Your task to perform on an android device: turn on the 24-hour format for clock Image 0: 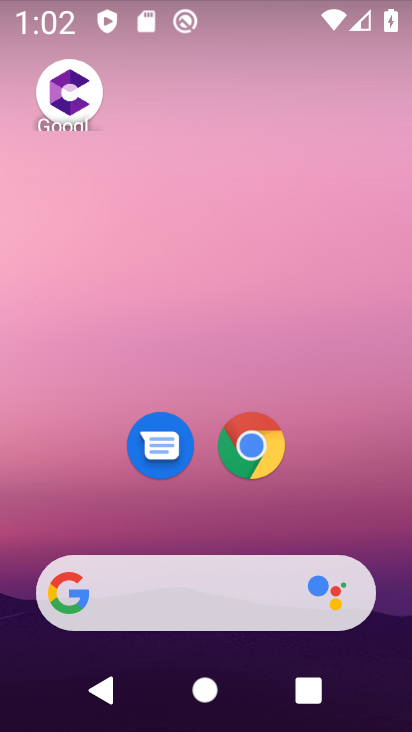
Step 0: drag from (161, 519) to (176, 41)
Your task to perform on an android device: turn on the 24-hour format for clock Image 1: 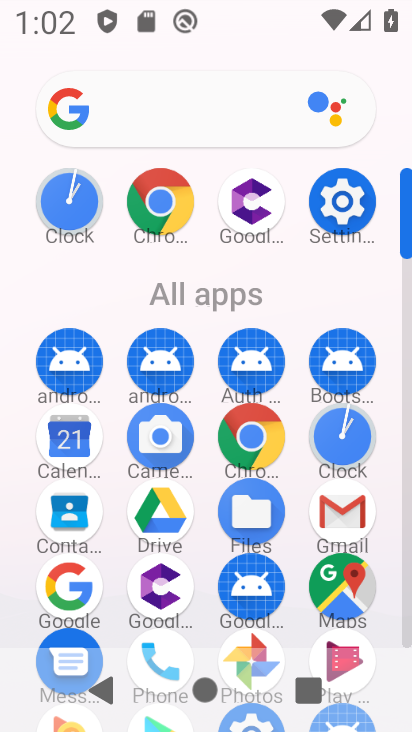
Step 1: click (47, 202)
Your task to perform on an android device: turn on the 24-hour format for clock Image 2: 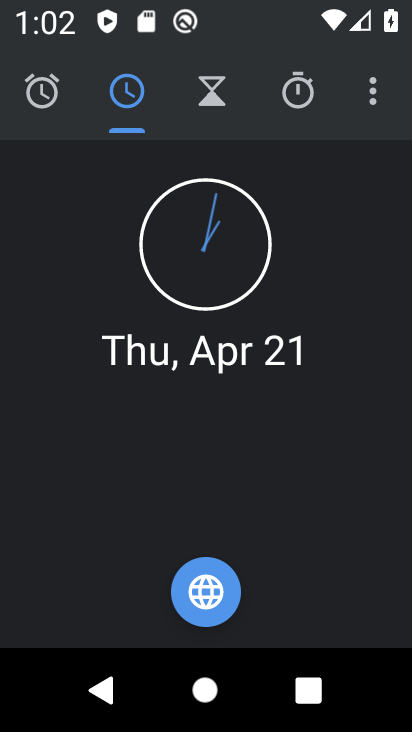
Step 2: click (375, 84)
Your task to perform on an android device: turn on the 24-hour format for clock Image 3: 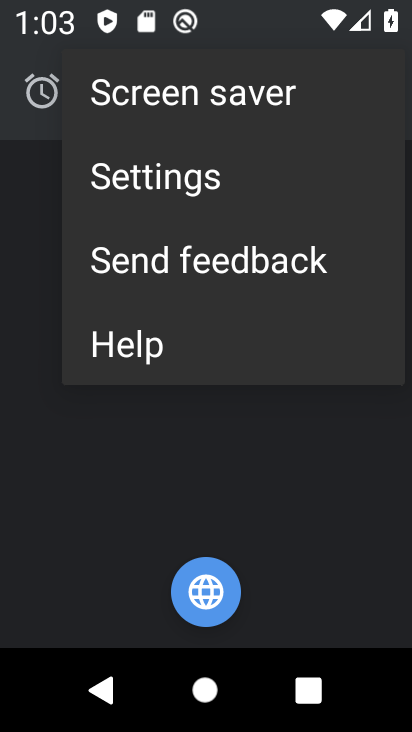
Step 3: click (287, 161)
Your task to perform on an android device: turn on the 24-hour format for clock Image 4: 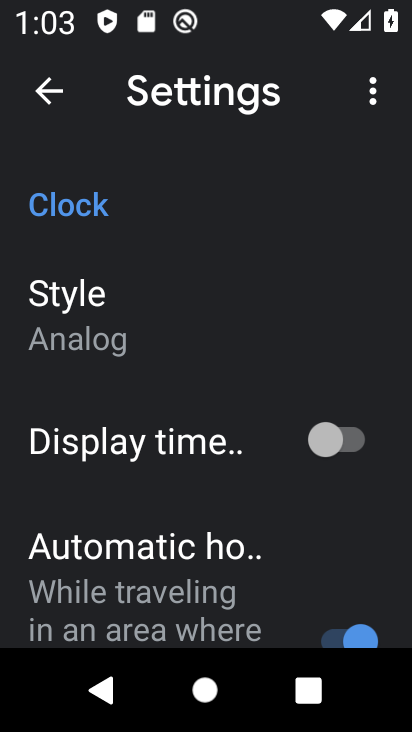
Step 4: drag from (148, 600) to (141, 87)
Your task to perform on an android device: turn on the 24-hour format for clock Image 5: 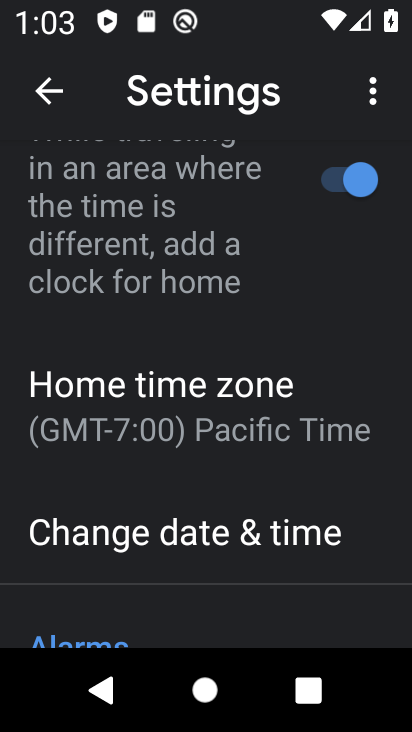
Step 5: click (287, 532)
Your task to perform on an android device: turn on the 24-hour format for clock Image 6: 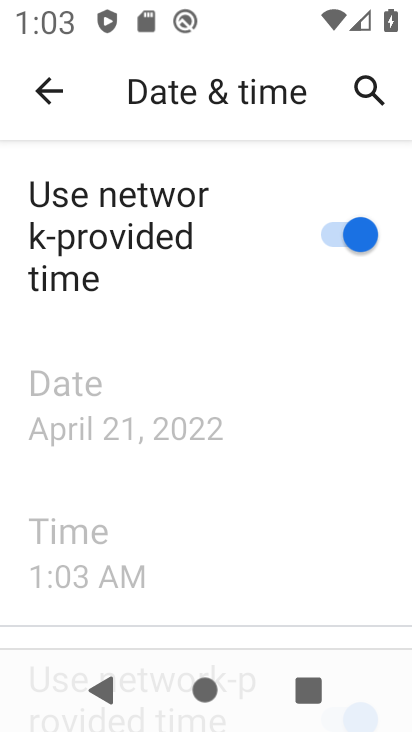
Step 6: drag from (218, 507) to (236, 144)
Your task to perform on an android device: turn on the 24-hour format for clock Image 7: 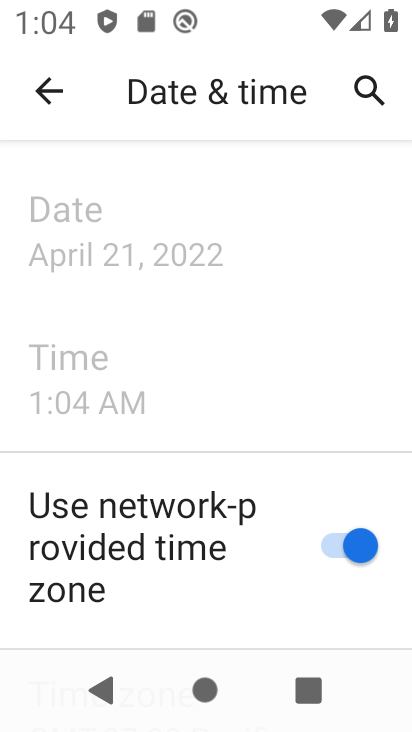
Step 7: drag from (129, 560) to (231, 66)
Your task to perform on an android device: turn on the 24-hour format for clock Image 8: 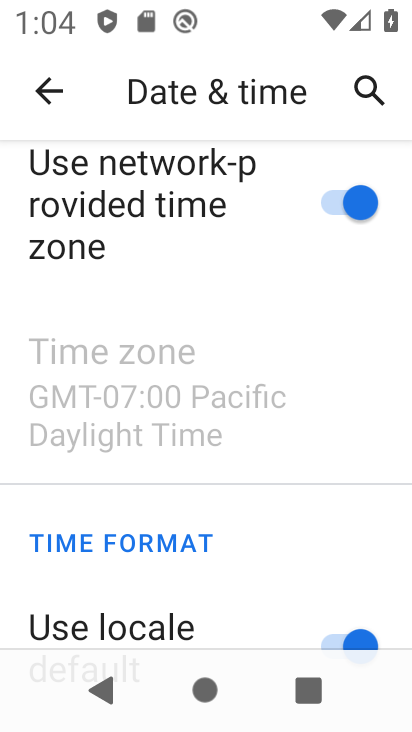
Step 8: drag from (210, 568) to (253, 227)
Your task to perform on an android device: turn on the 24-hour format for clock Image 9: 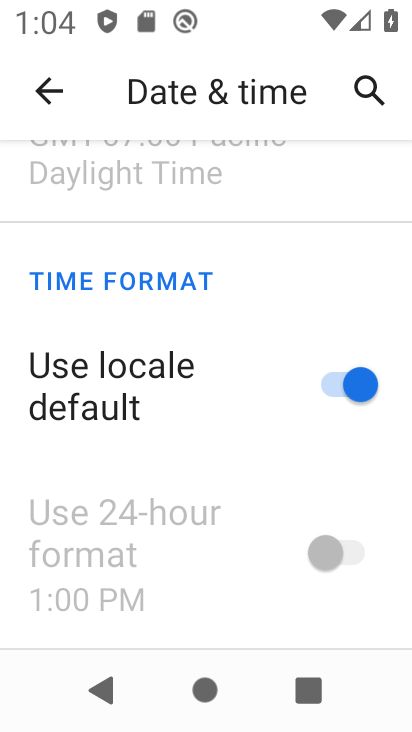
Step 9: click (327, 366)
Your task to perform on an android device: turn on the 24-hour format for clock Image 10: 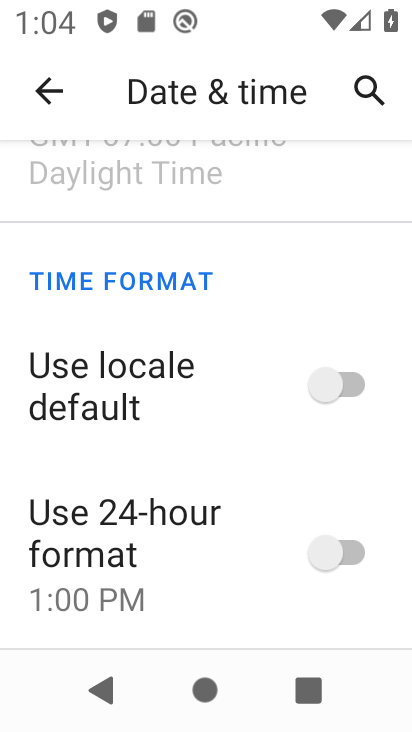
Step 10: click (346, 549)
Your task to perform on an android device: turn on the 24-hour format for clock Image 11: 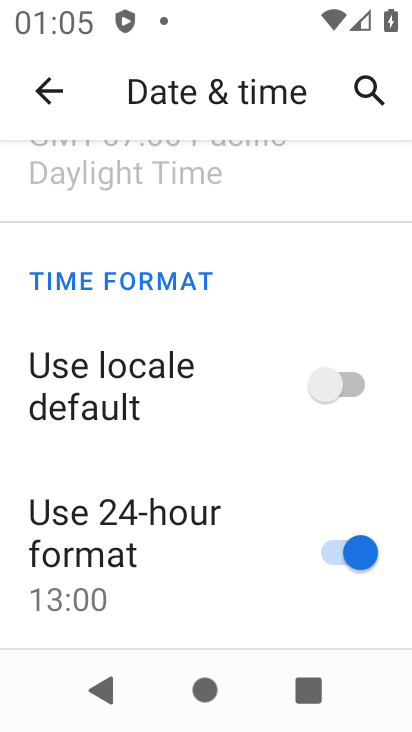
Step 11: task complete